Your task to perform on an android device: turn on the 24-hour format for clock Image 0: 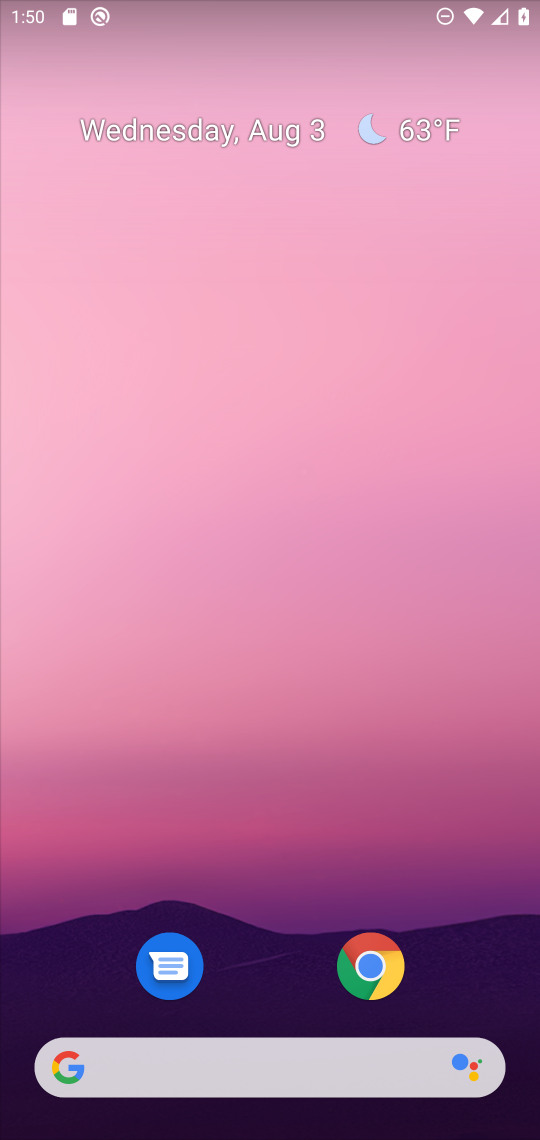
Step 0: drag from (266, 862) to (281, 339)
Your task to perform on an android device: turn on the 24-hour format for clock Image 1: 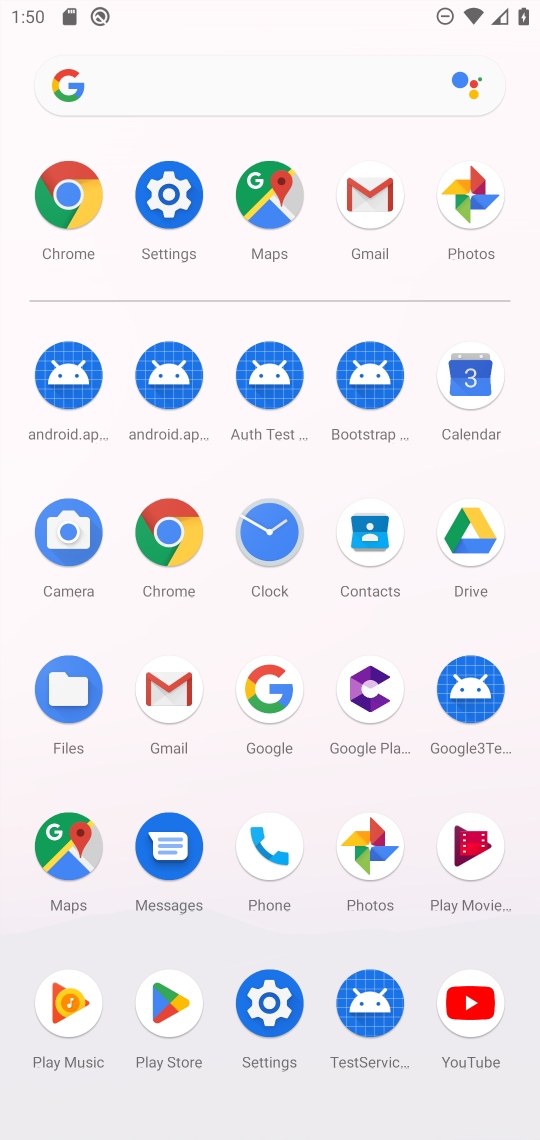
Step 1: click (275, 537)
Your task to perform on an android device: turn on the 24-hour format for clock Image 2: 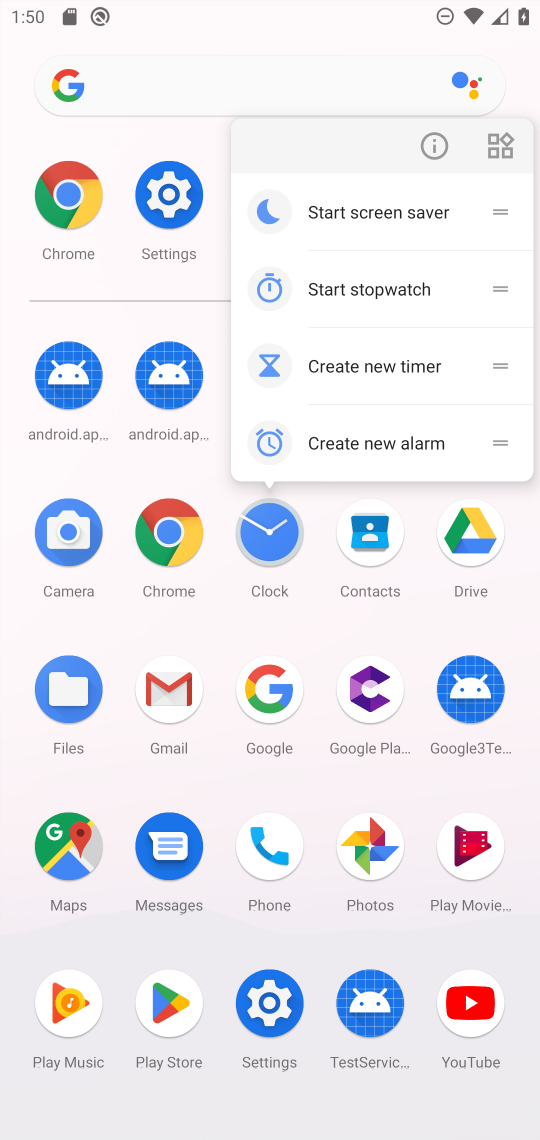
Step 2: click (275, 537)
Your task to perform on an android device: turn on the 24-hour format for clock Image 3: 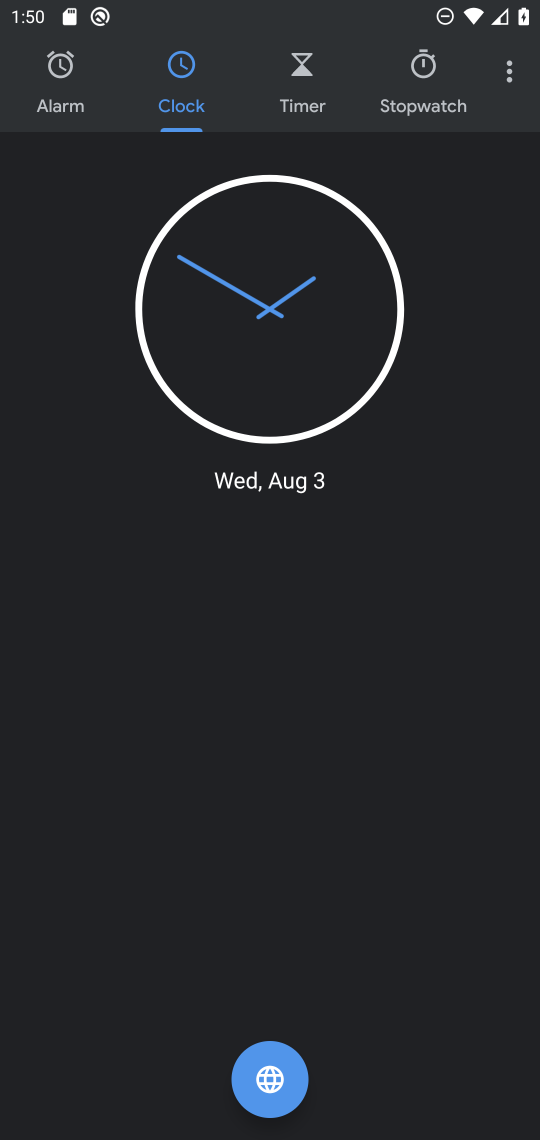
Step 3: click (515, 72)
Your task to perform on an android device: turn on the 24-hour format for clock Image 4: 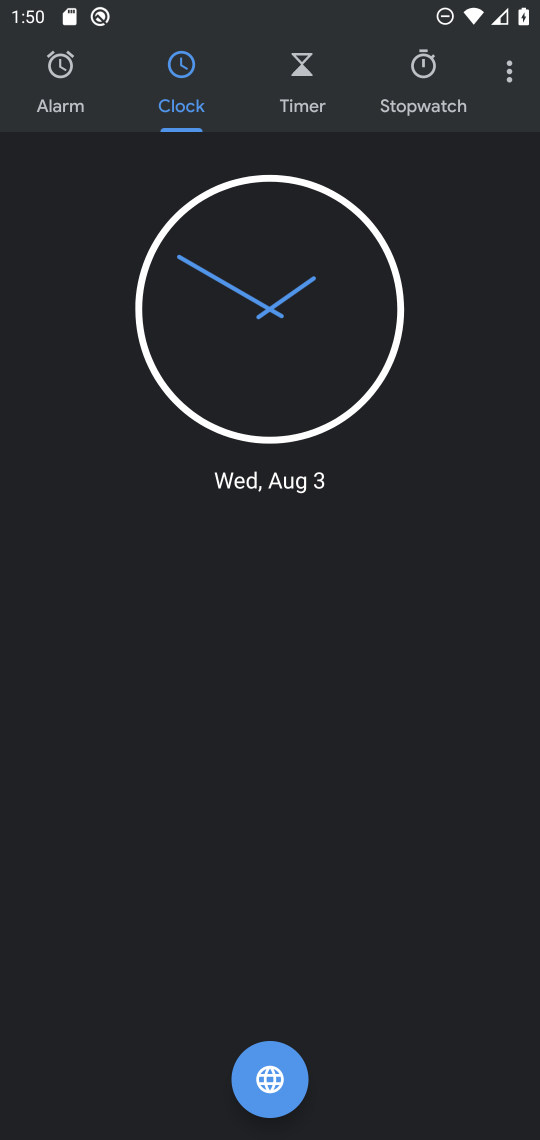
Step 4: click (501, 84)
Your task to perform on an android device: turn on the 24-hour format for clock Image 5: 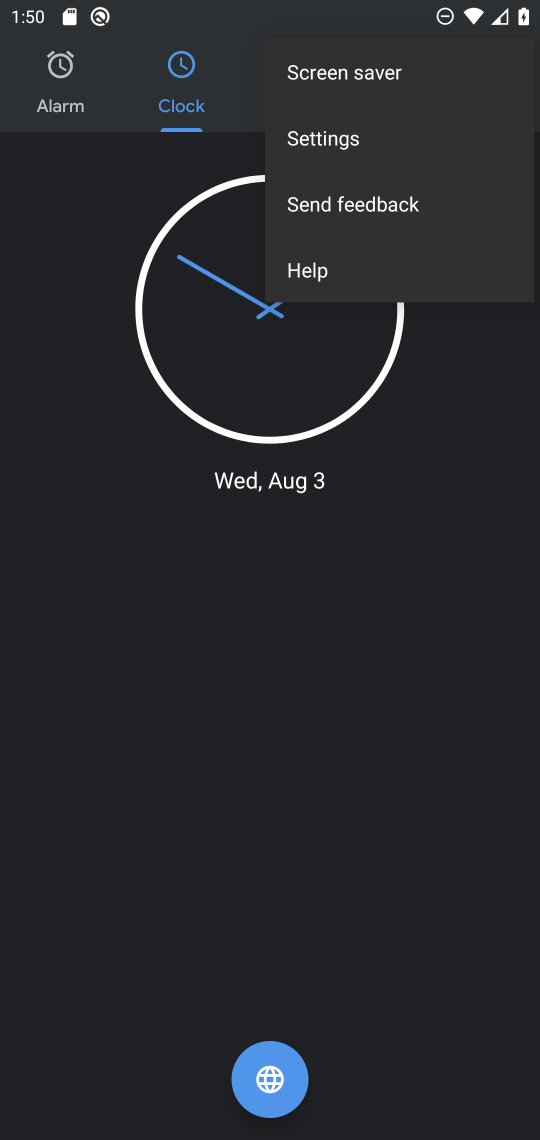
Step 5: click (341, 162)
Your task to perform on an android device: turn on the 24-hour format for clock Image 6: 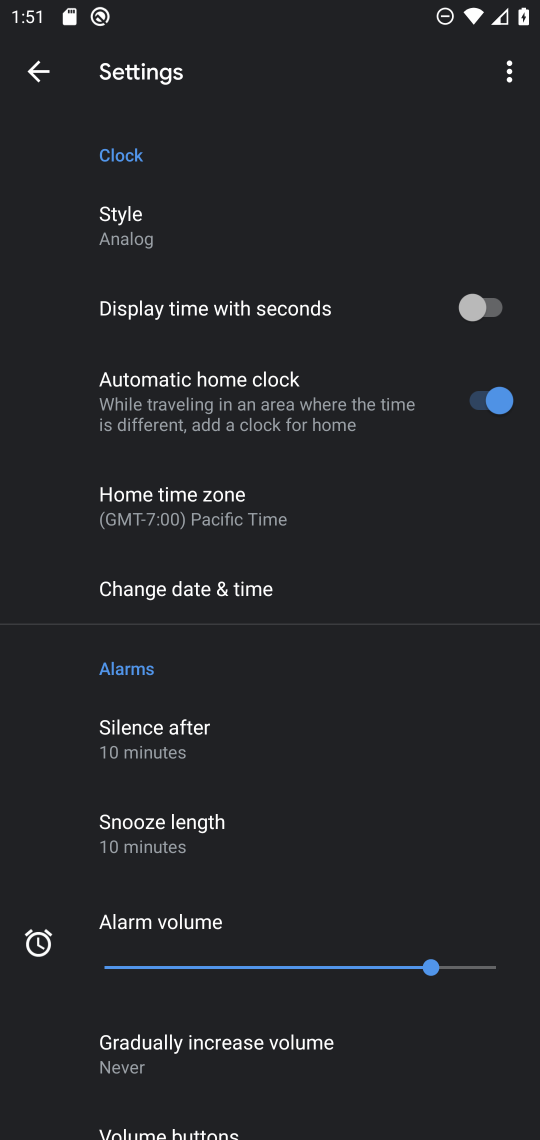
Step 6: click (263, 595)
Your task to perform on an android device: turn on the 24-hour format for clock Image 7: 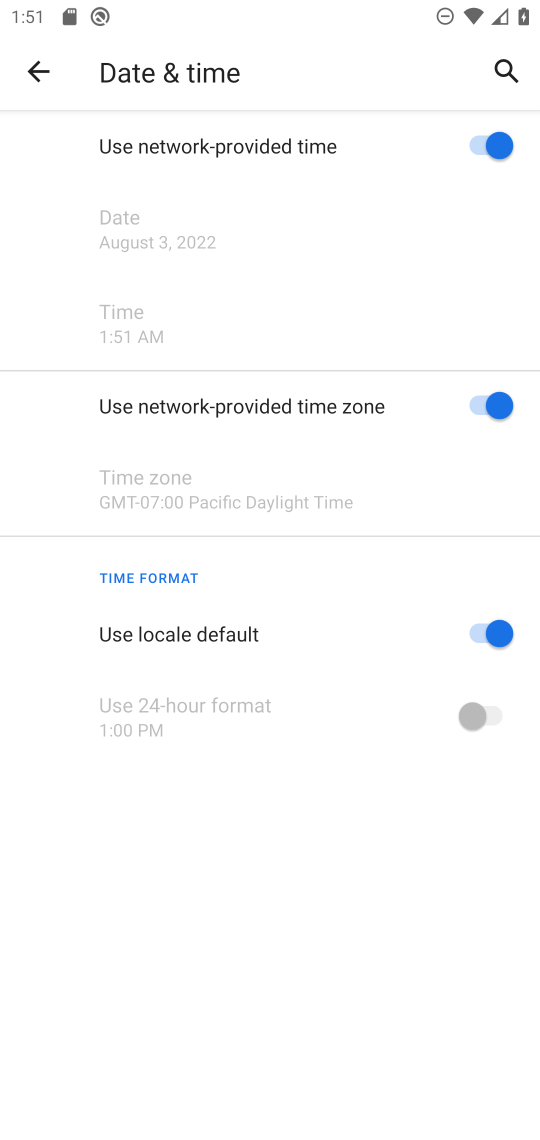
Step 7: click (477, 631)
Your task to perform on an android device: turn on the 24-hour format for clock Image 8: 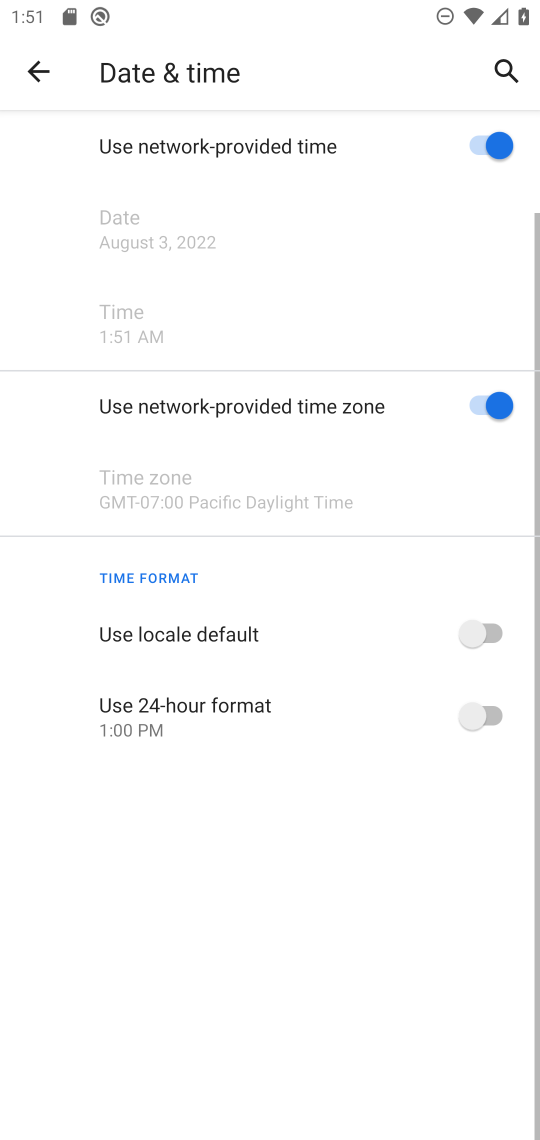
Step 8: click (498, 713)
Your task to perform on an android device: turn on the 24-hour format for clock Image 9: 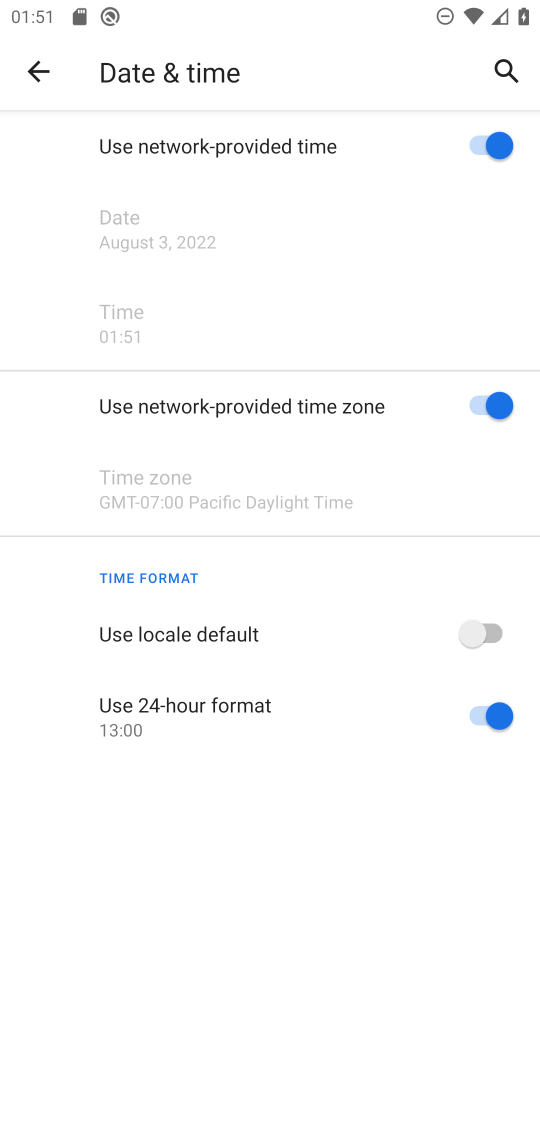
Step 9: task complete